Your task to perform on an android device: Search for "energizer triple a" on walmart.com, select the first entry, add it to the cart, then select checkout. Image 0: 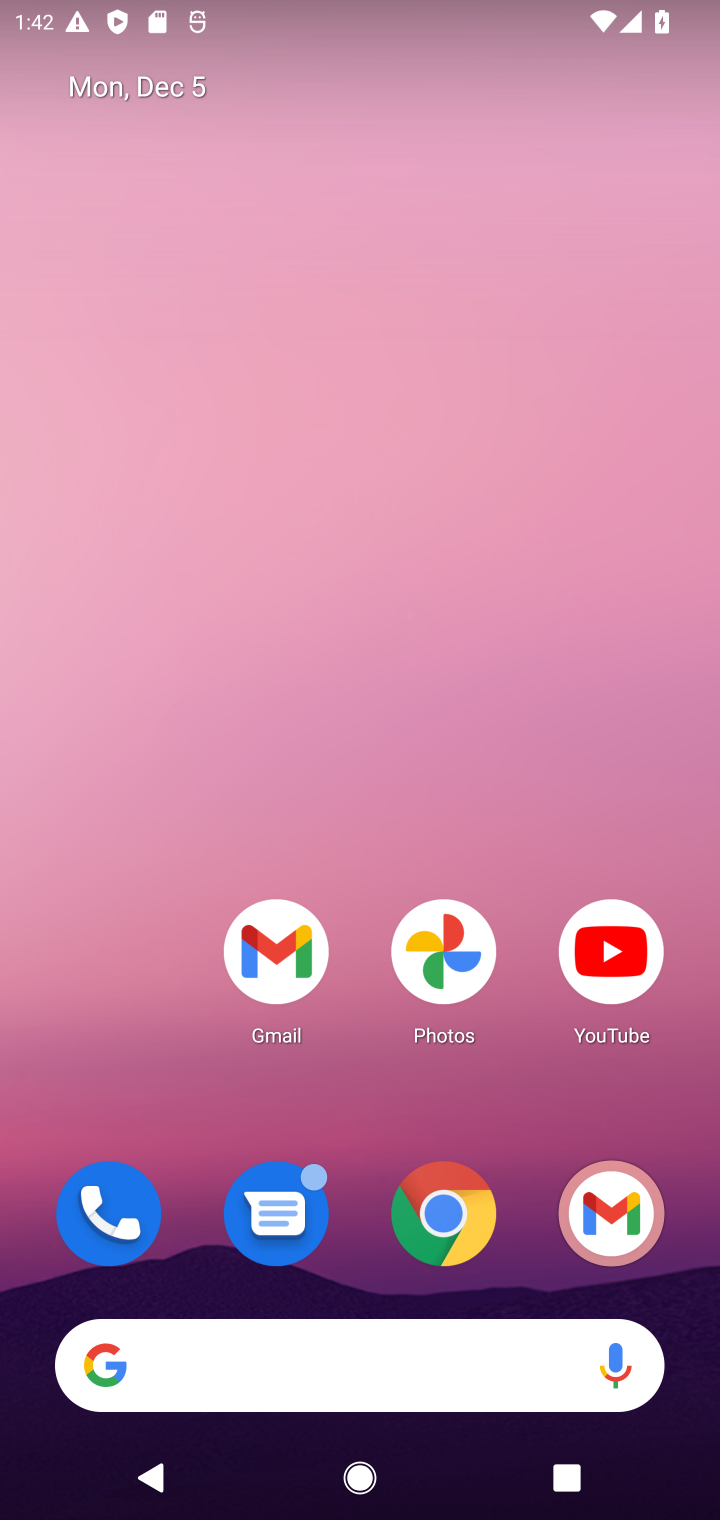
Step 0: click (447, 1222)
Your task to perform on an android device: Search for "energizer triple a" on walmart.com, select the first entry, add it to the cart, then select checkout. Image 1: 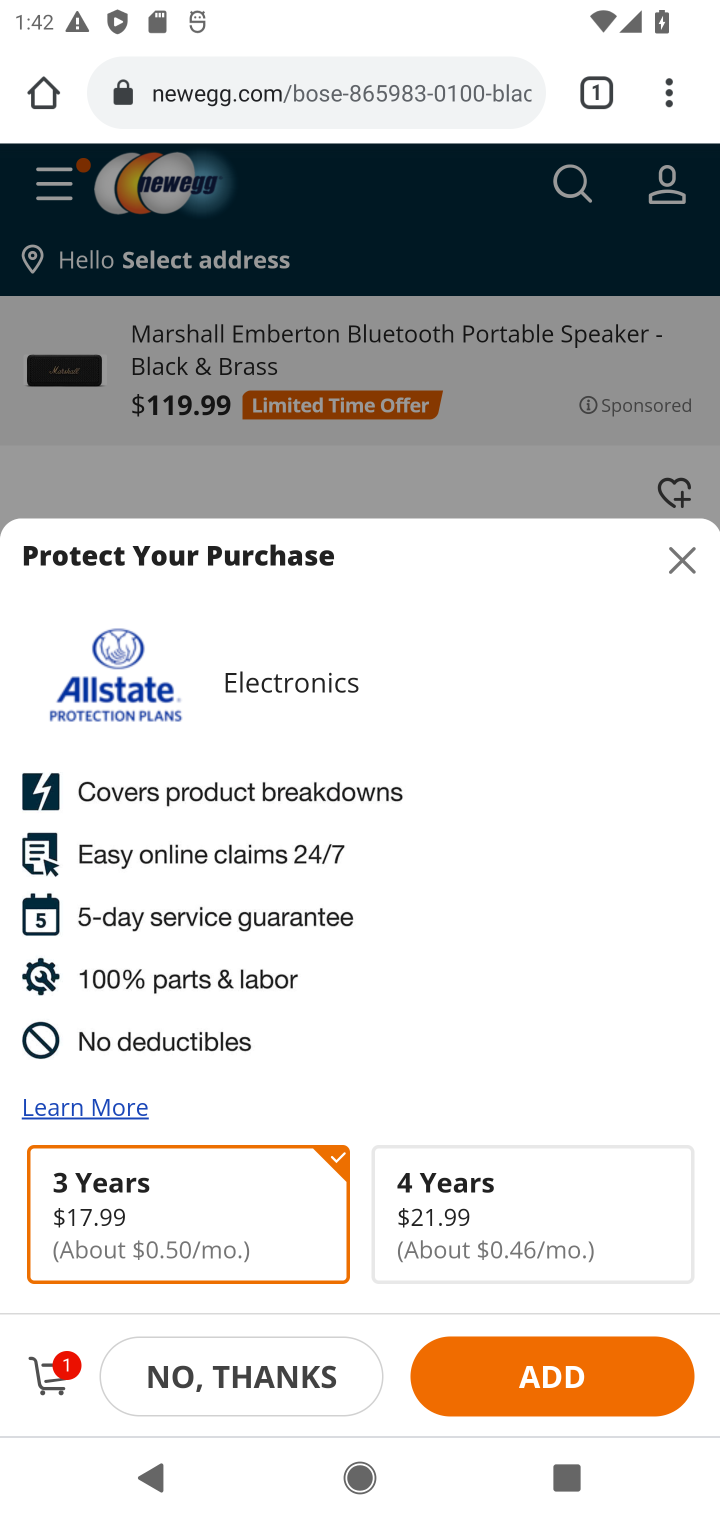
Step 1: click (285, 89)
Your task to perform on an android device: Search for "energizer triple a" on walmart.com, select the first entry, add it to the cart, then select checkout. Image 2: 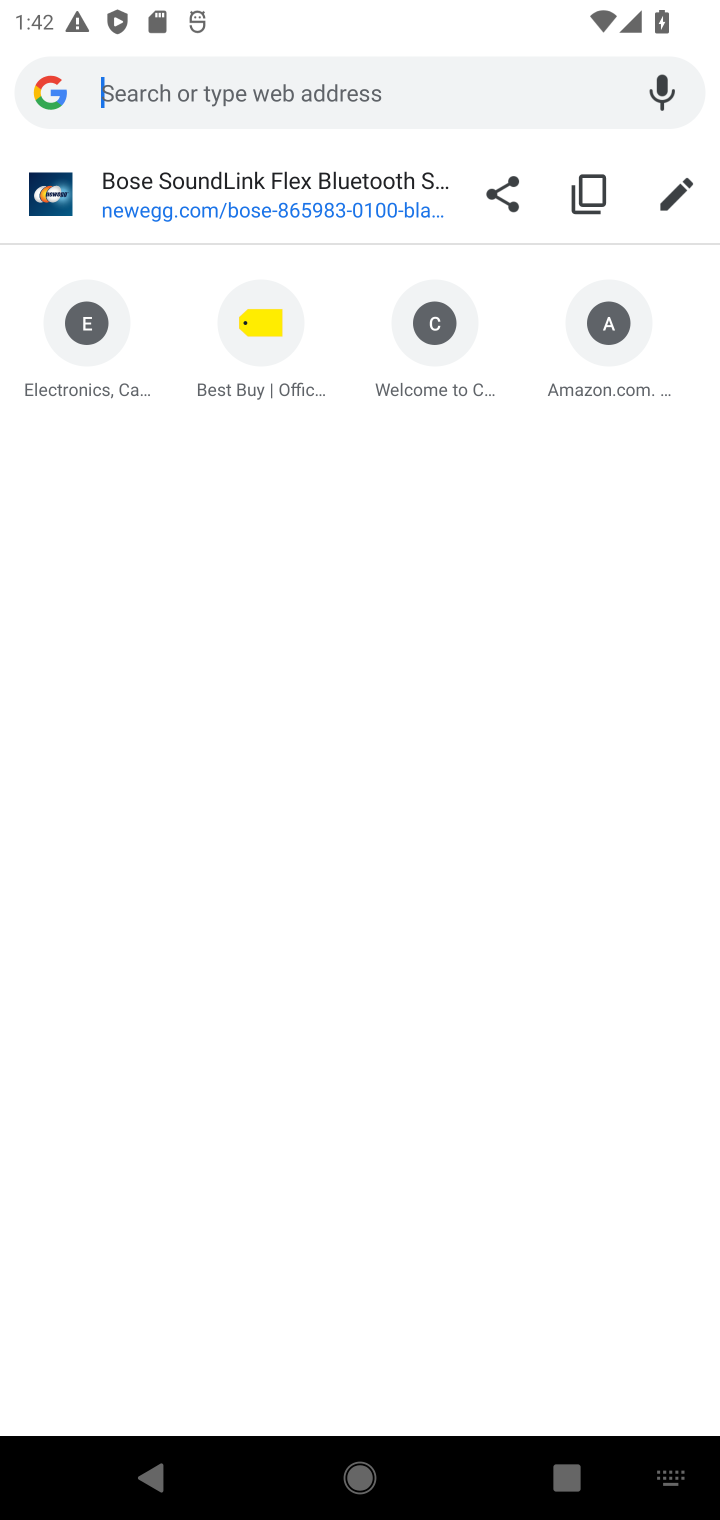
Step 2: type "walmart.com"
Your task to perform on an android device: Search for "energizer triple a" on walmart.com, select the first entry, add it to the cart, then select checkout. Image 3: 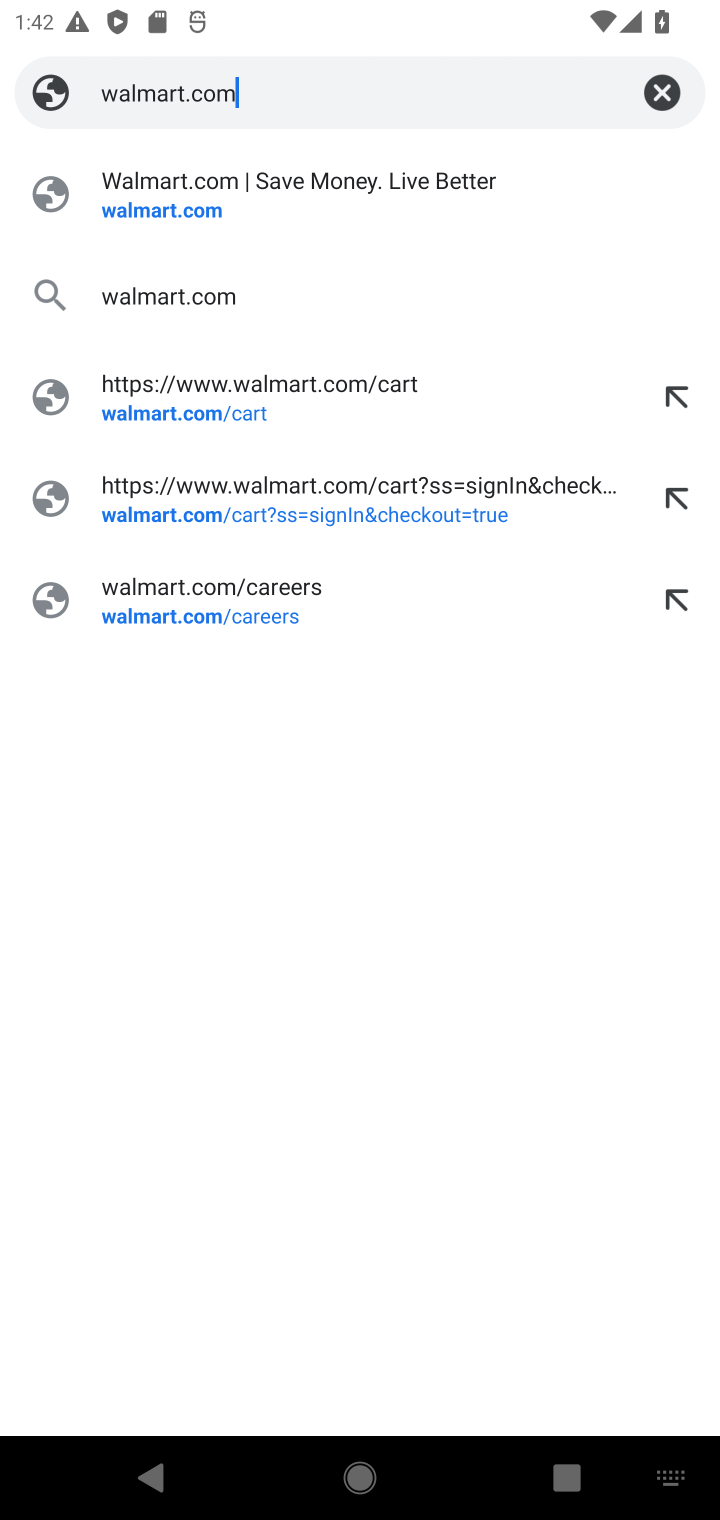
Step 3: click (188, 210)
Your task to perform on an android device: Search for "energizer triple a" on walmart.com, select the first entry, add it to the cart, then select checkout. Image 4: 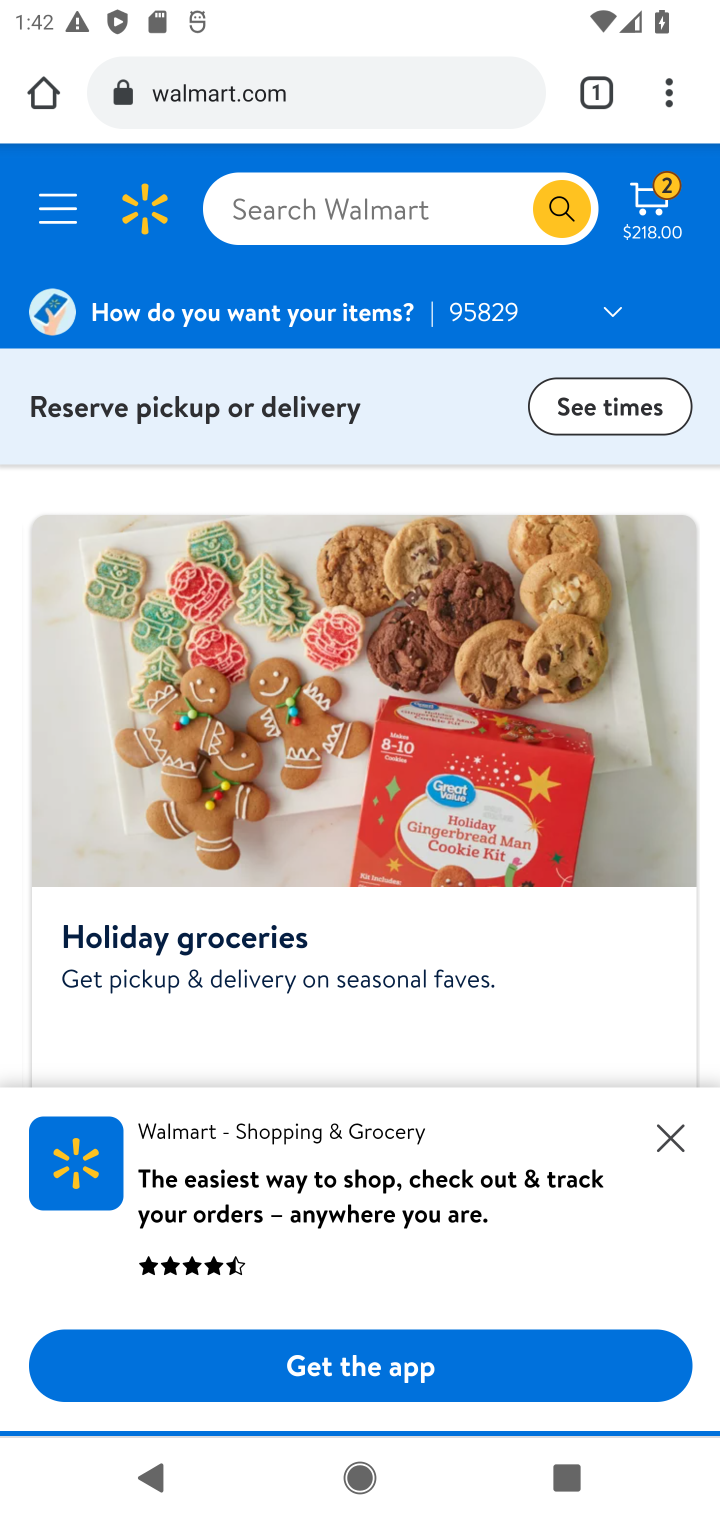
Step 4: click (404, 227)
Your task to perform on an android device: Search for "energizer triple a" on walmart.com, select the first entry, add it to the cart, then select checkout. Image 5: 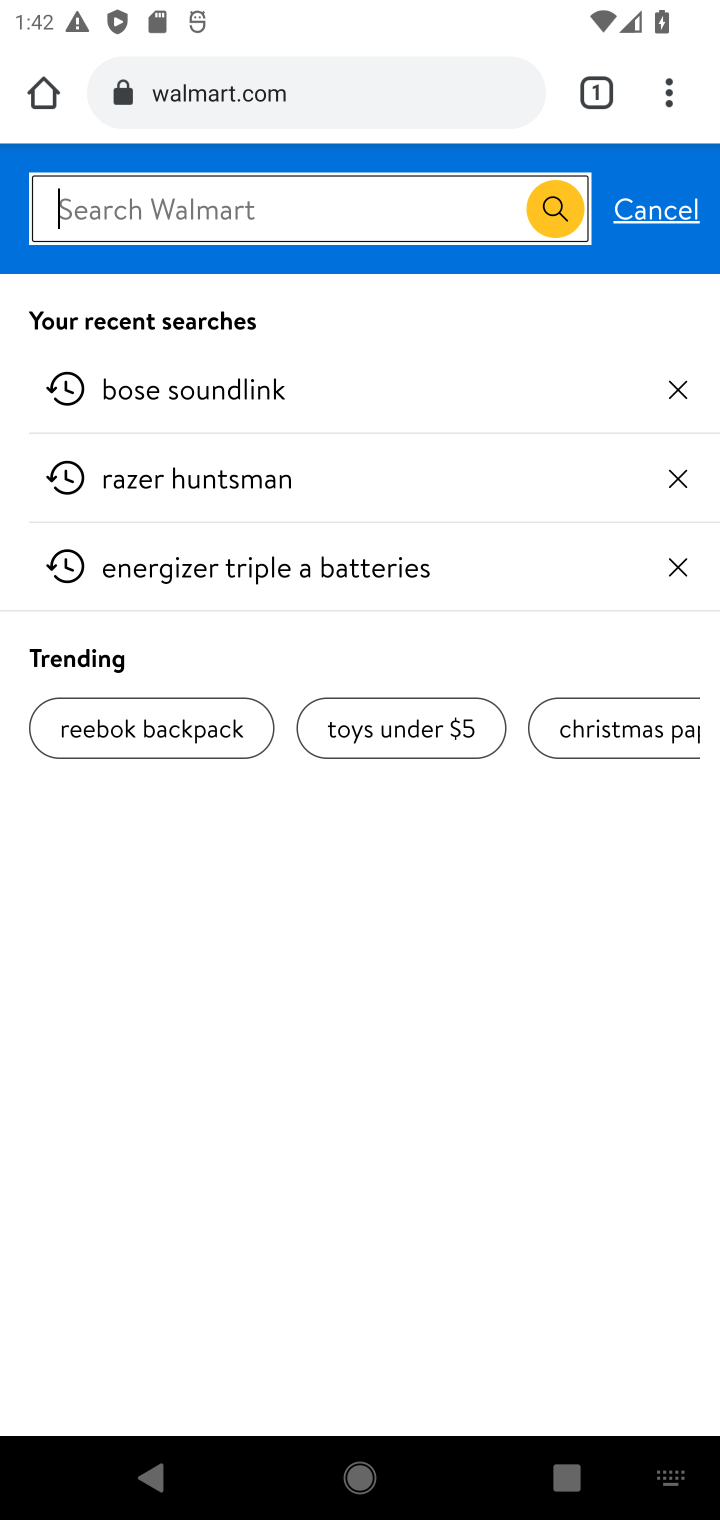
Step 5: type "energizer triple a"
Your task to perform on an android device: Search for "energizer triple a" on walmart.com, select the first entry, add it to the cart, then select checkout. Image 6: 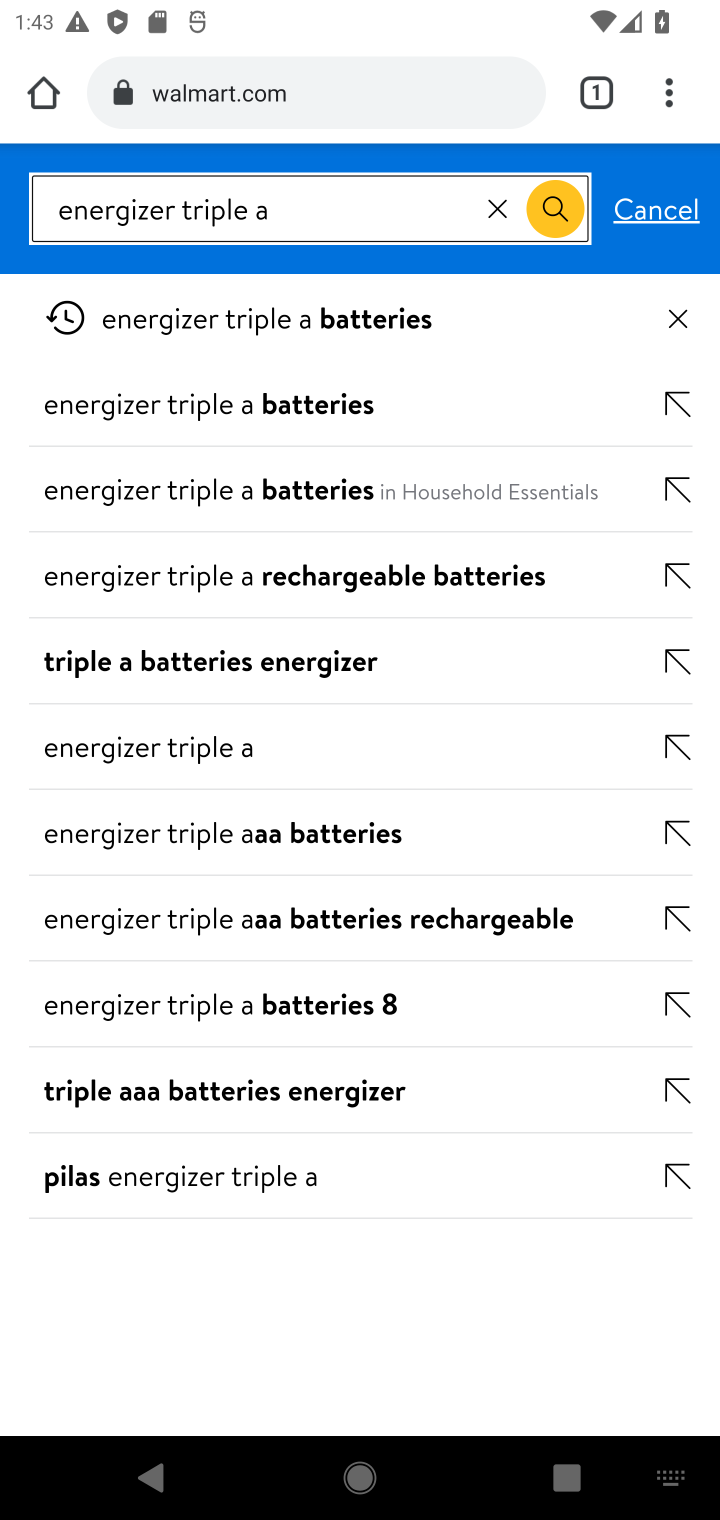
Step 6: click (234, 321)
Your task to perform on an android device: Search for "energizer triple a" on walmart.com, select the first entry, add it to the cart, then select checkout. Image 7: 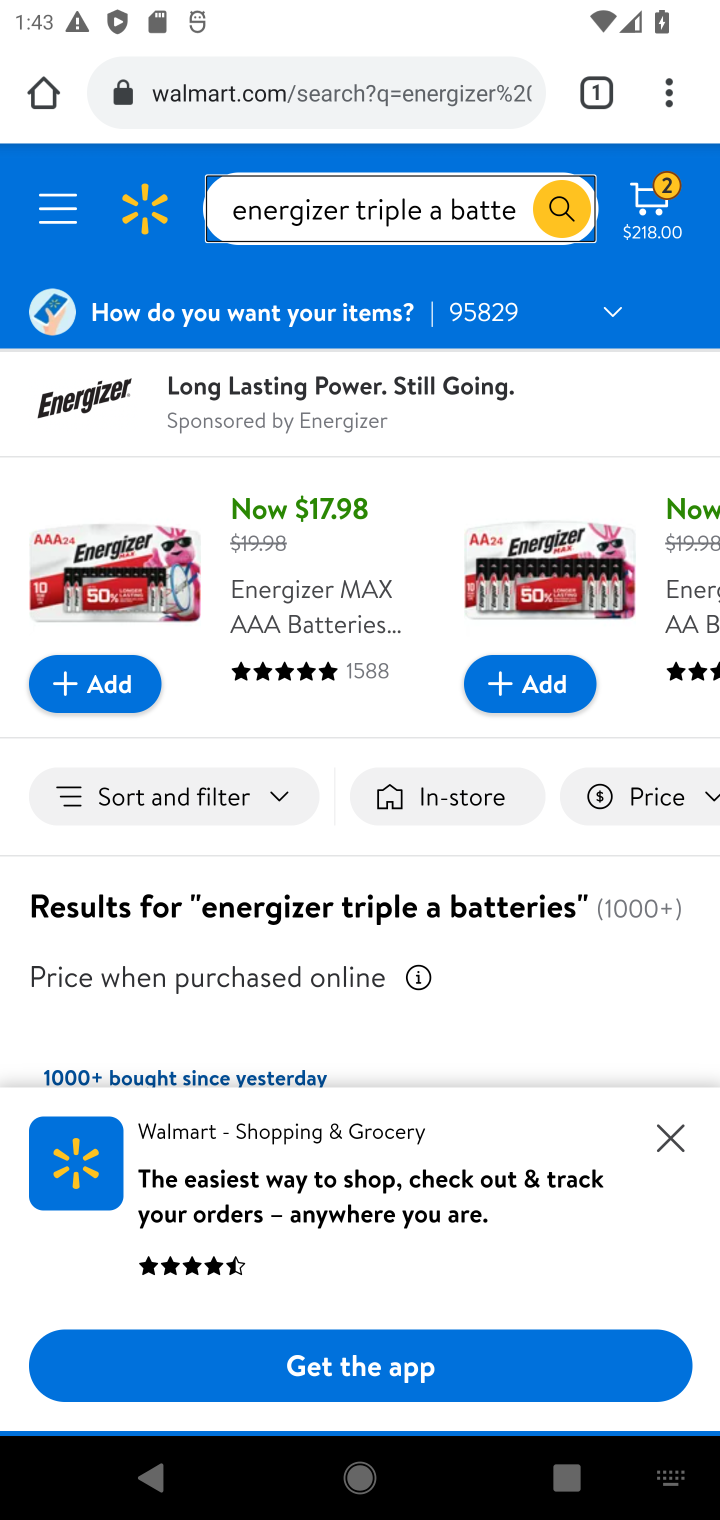
Step 7: drag from (342, 824) to (329, 375)
Your task to perform on an android device: Search for "energizer triple a" on walmart.com, select the first entry, add it to the cart, then select checkout. Image 8: 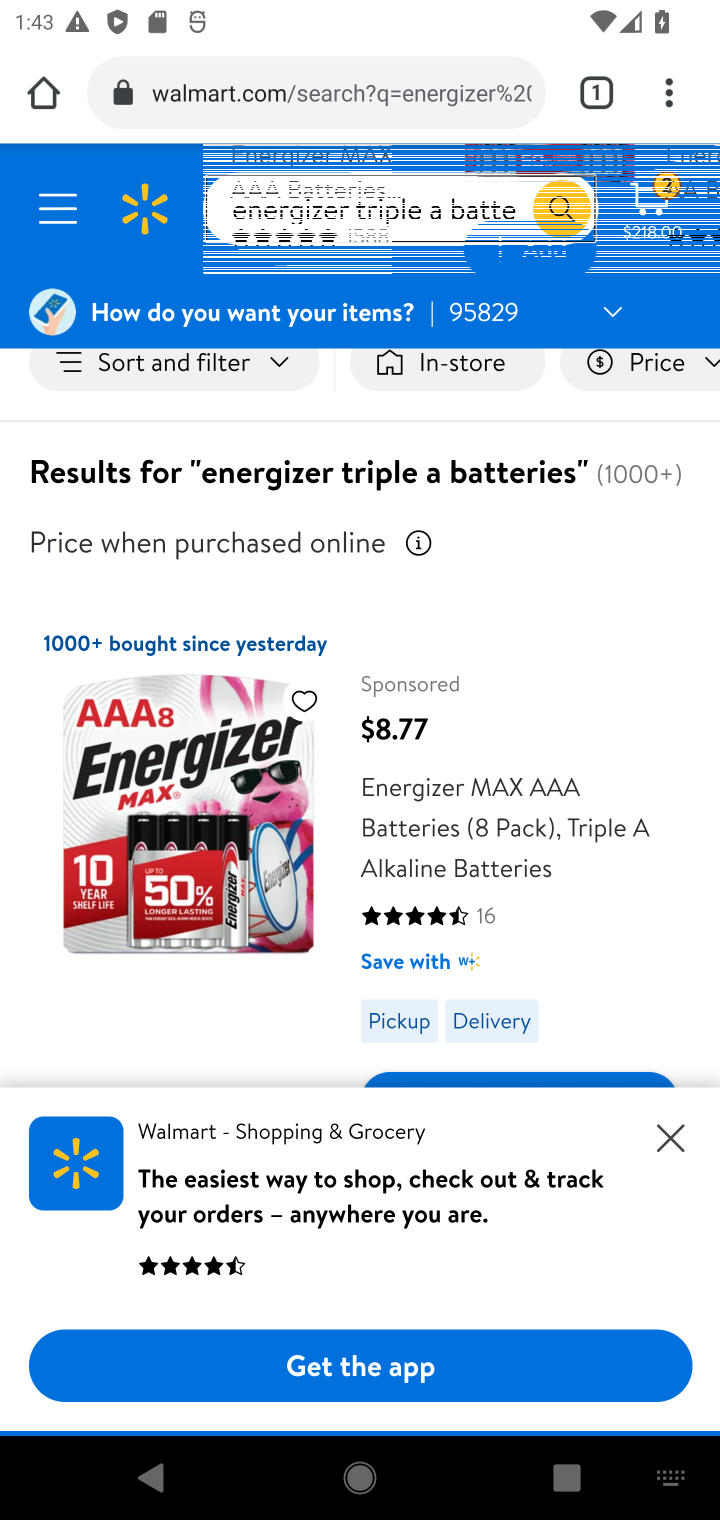
Step 8: drag from (463, 902) to (448, 540)
Your task to perform on an android device: Search for "energizer triple a" on walmart.com, select the first entry, add it to the cart, then select checkout. Image 9: 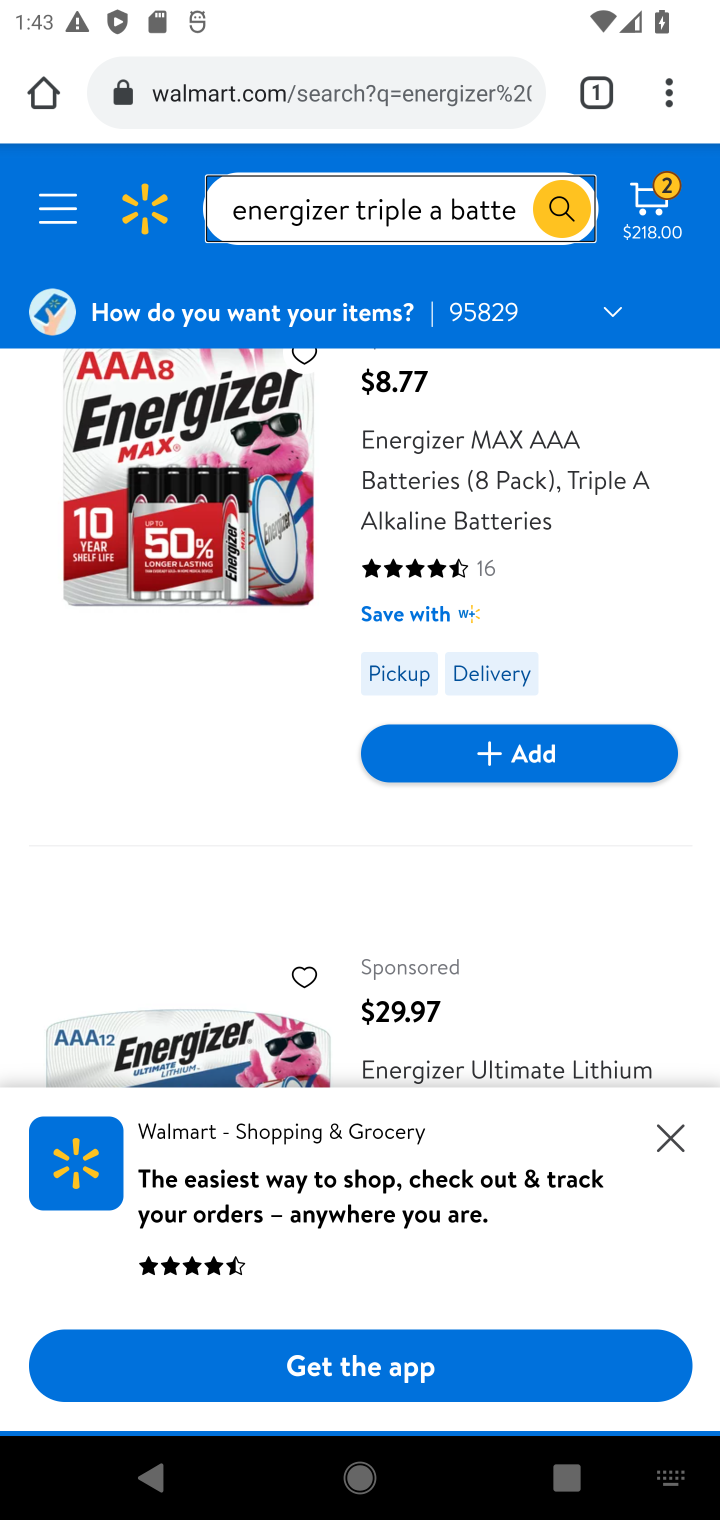
Step 9: click (524, 759)
Your task to perform on an android device: Search for "energizer triple a" on walmart.com, select the first entry, add it to the cart, then select checkout. Image 10: 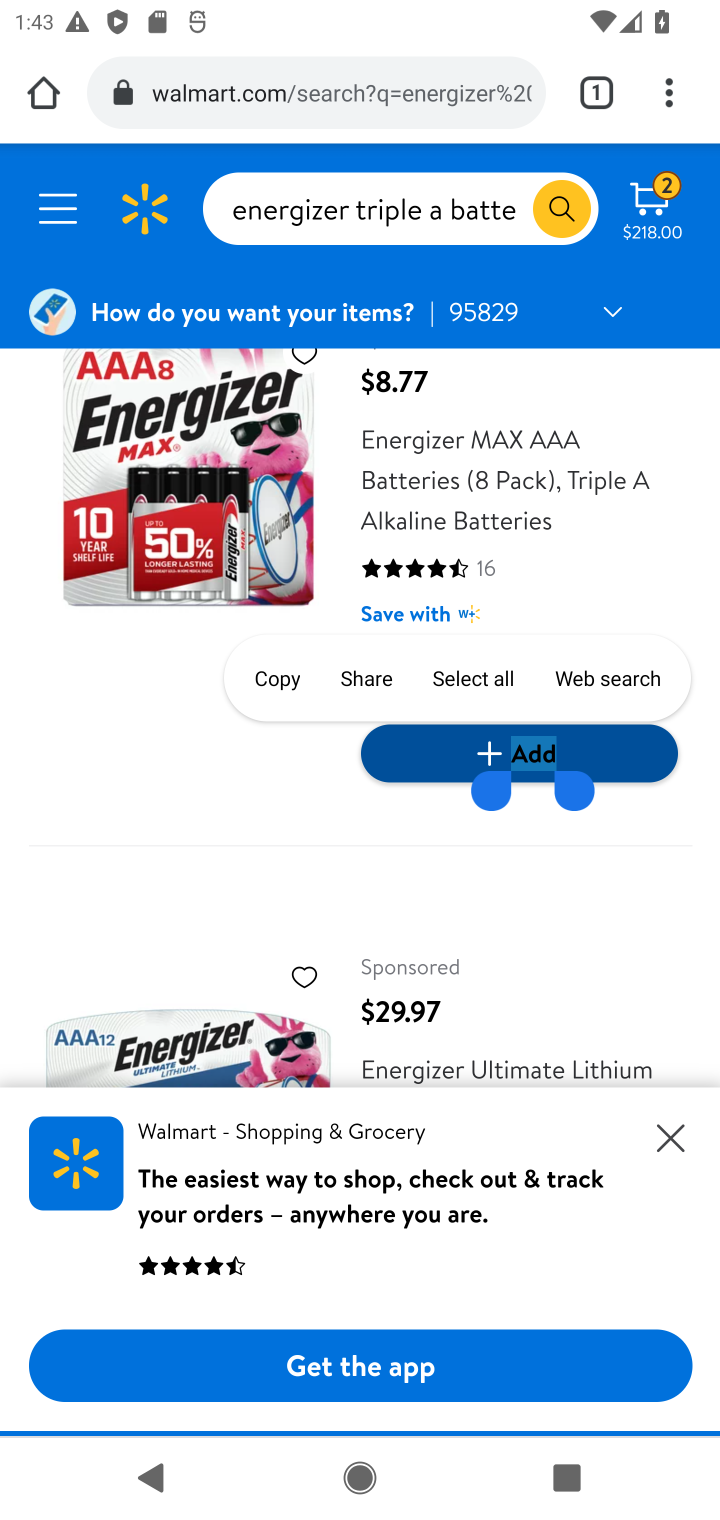
Step 10: click (487, 756)
Your task to perform on an android device: Search for "energizer triple a" on walmart.com, select the first entry, add it to the cart, then select checkout. Image 11: 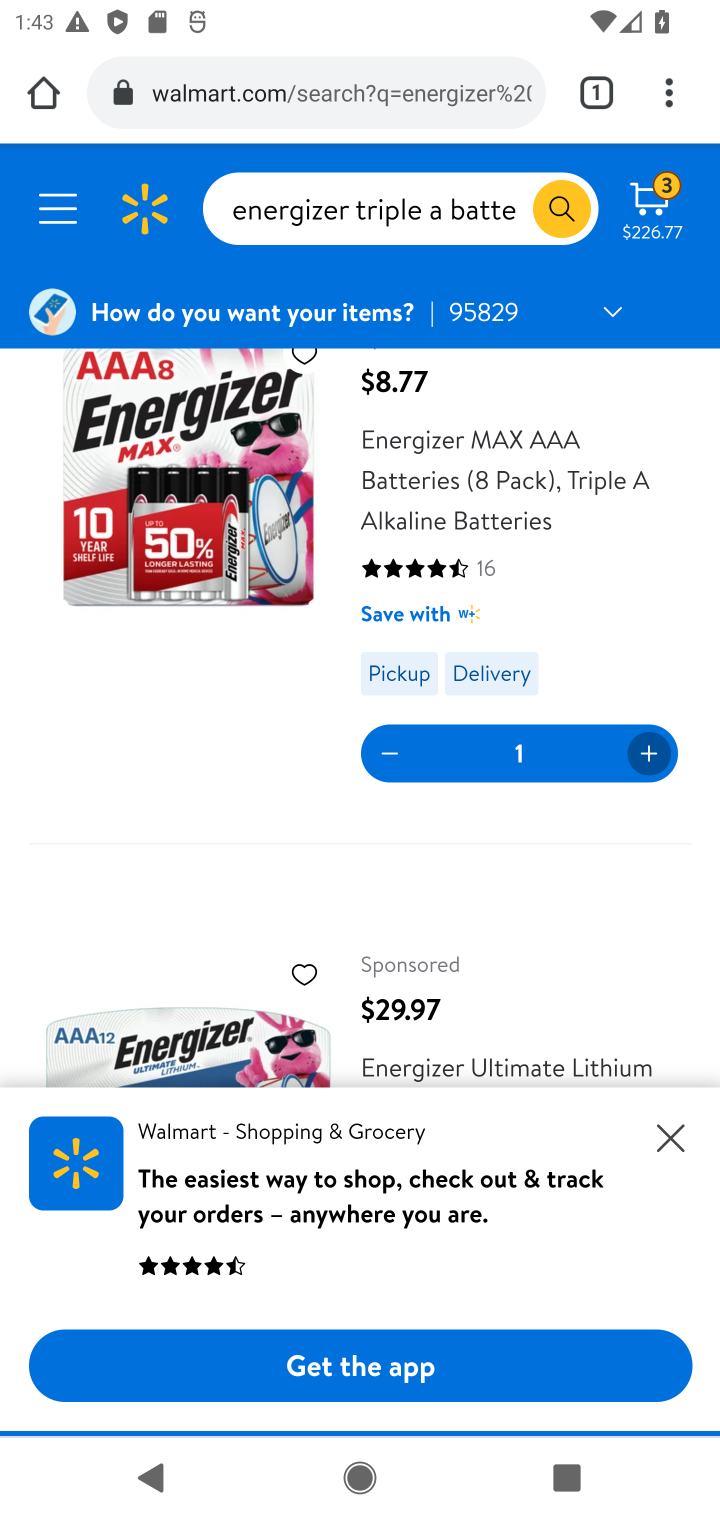
Step 11: click (636, 219)
Your task to perform on an android device: Search for "energizer triple a" on walmart.com, select the first entry, add it to the cart, then select checkout. Image 12: 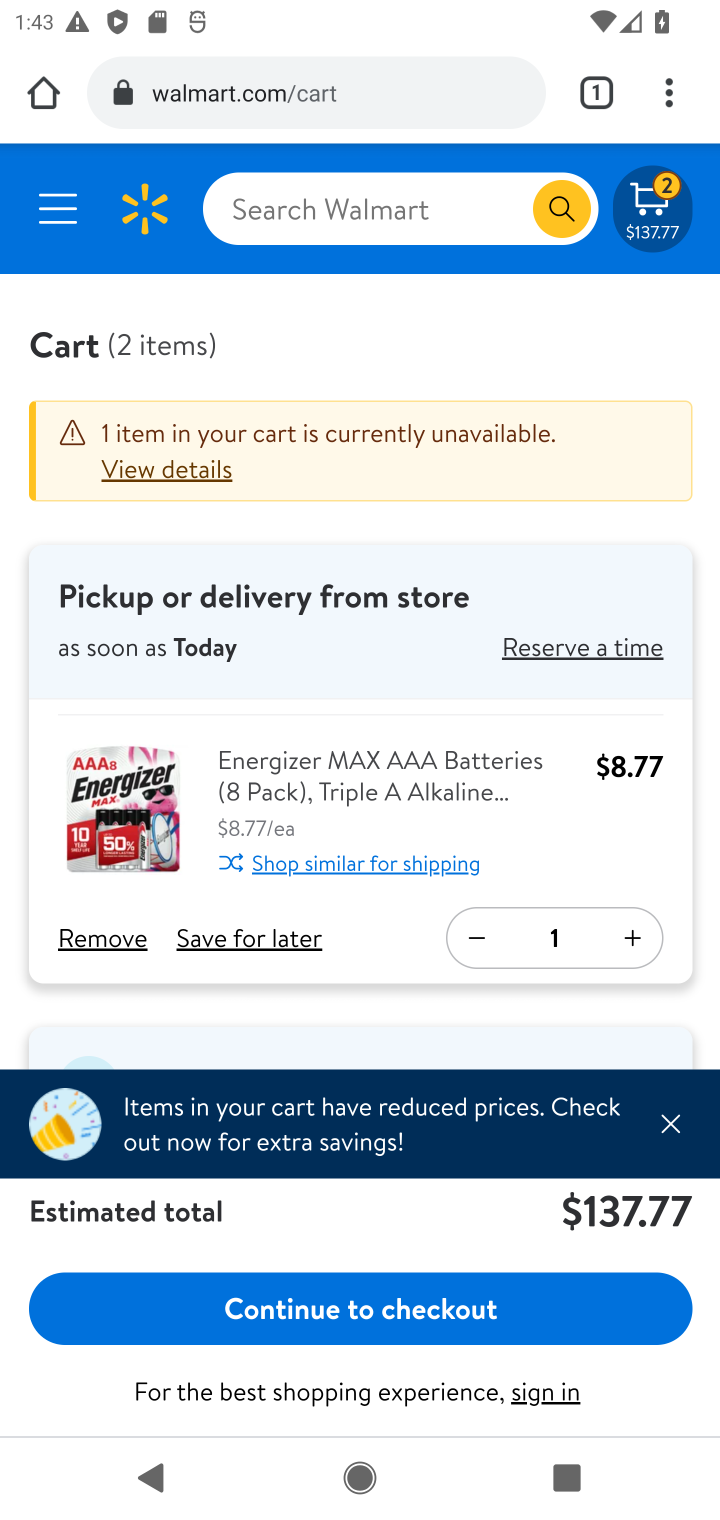
Step 12: click (380, 1299)
Your task to perform on an android device: Search for "energizer triple a" on walmart.com, select the first entry, add it to the cart, then select checkout. Image 13: 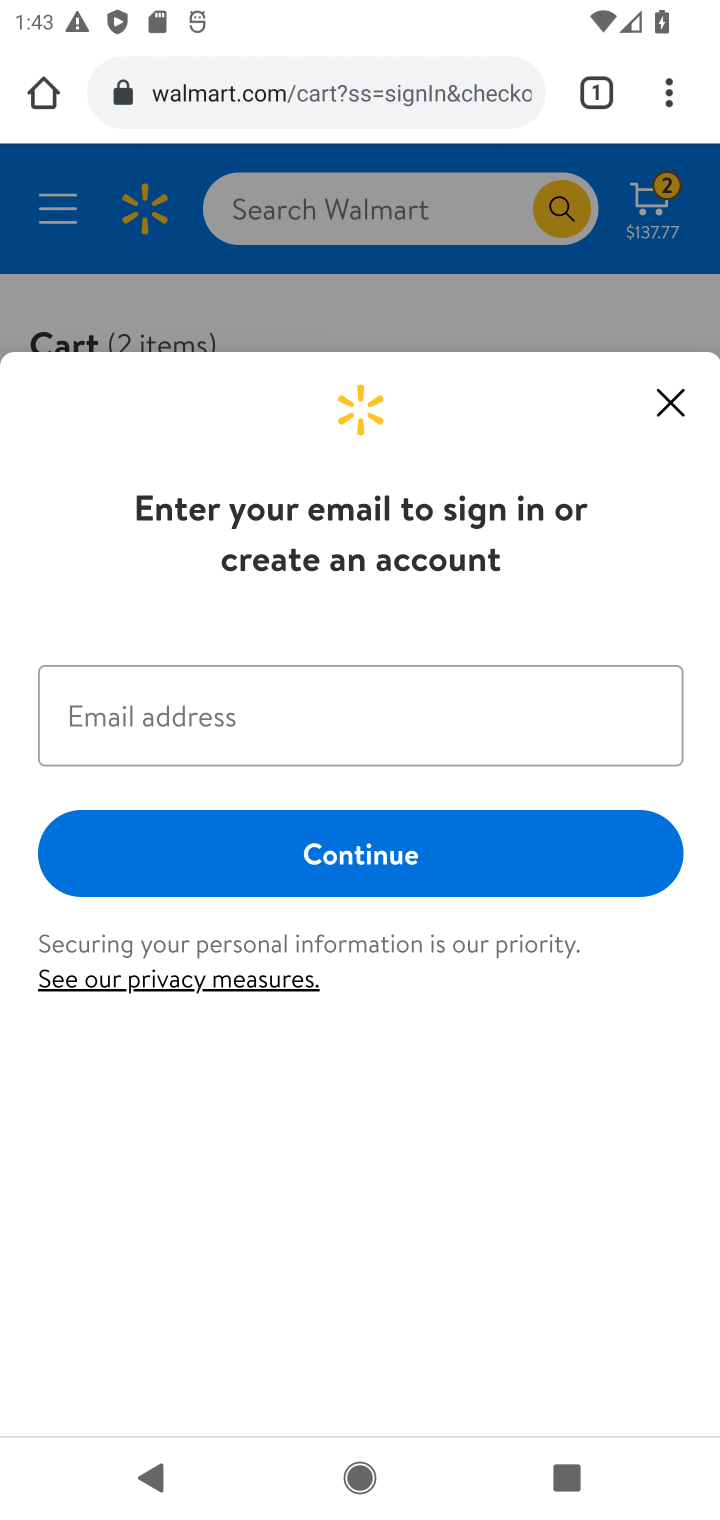
Step 13: task complete